Your task to perform on an android device: set default search engine in the chrome app Image 0: 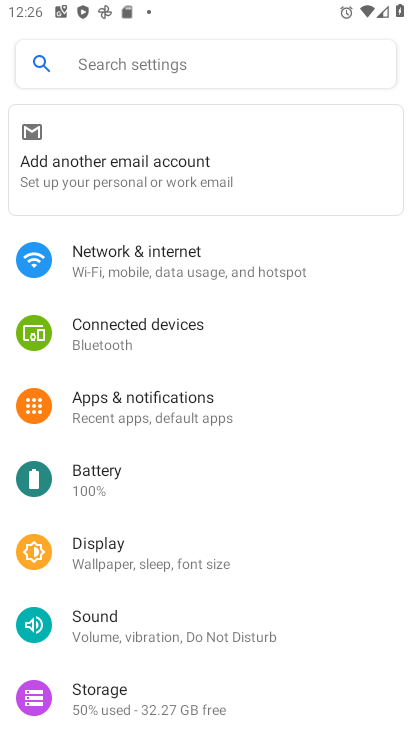
Step 0: drag from (204, 662) to (207, 332)
Your task to perform on an android device: set default search engine in the chrome app Image 1: 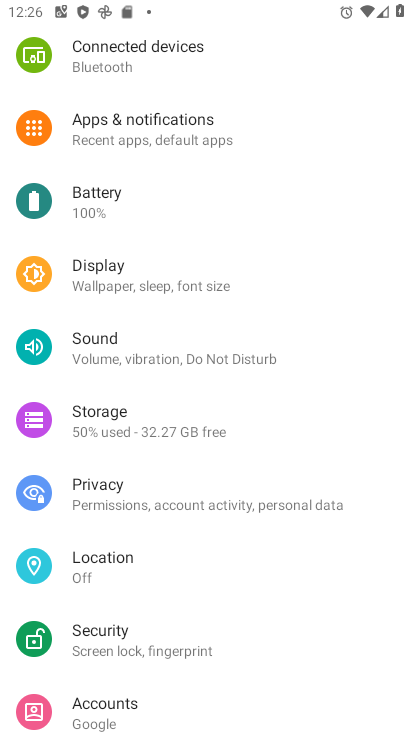
Step 1: press home button
Your task to perform on an android device: set default search engine in the chrome app Image 2: 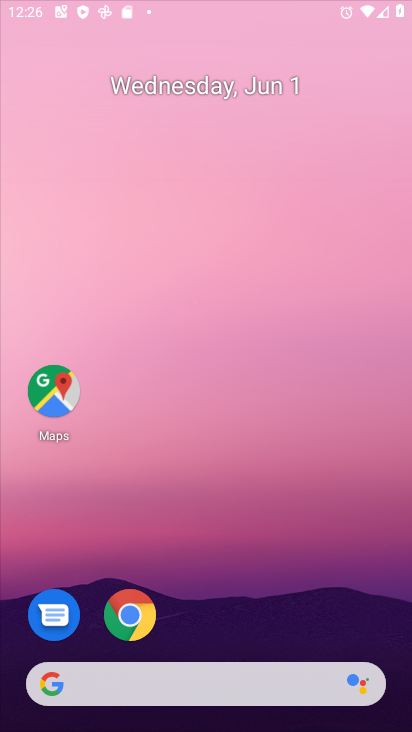
Step 2: drag from (237, 654) to (248, 100)
Your task to perform on an android device: set default search engine in the chrome app Image 3: 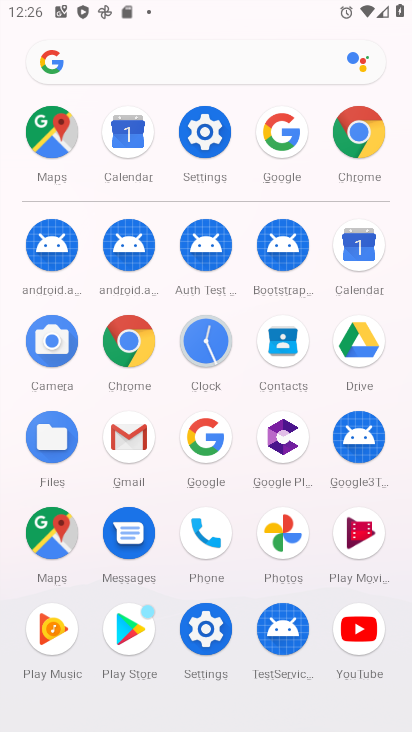
Step 3: click (358, 138)
Your task to perform on an android device: set default search engine in the chrome app Image 4: 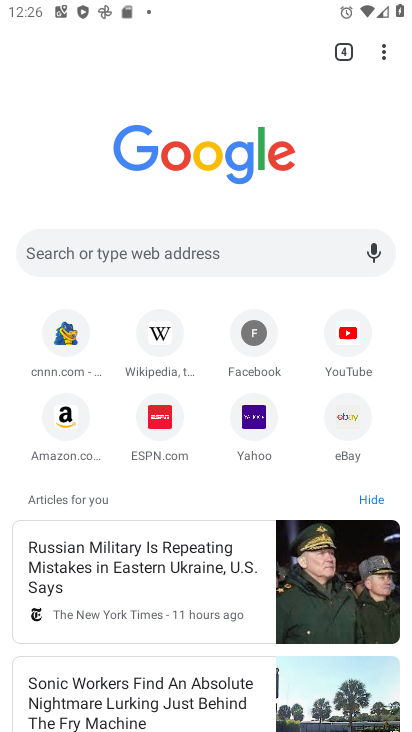
Step 4: drag from (379, 53) to (179, 431)
Your task to perform on an android device: set default search engine in the chrome app Image 5: 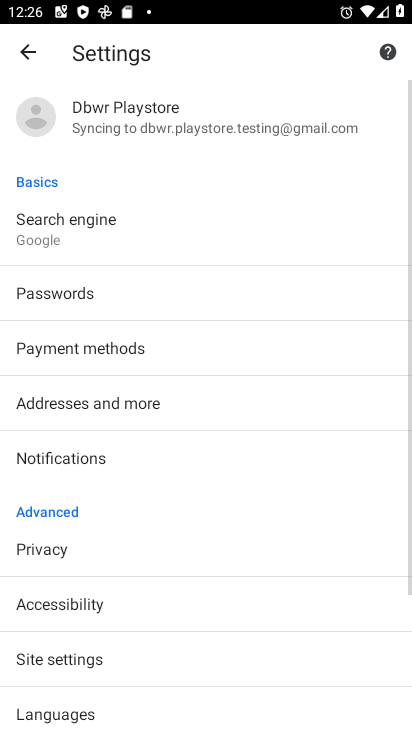
Step 5: click (90, 207)
Your task to perform on an android device: set default search engine in the chrome app Image 6: 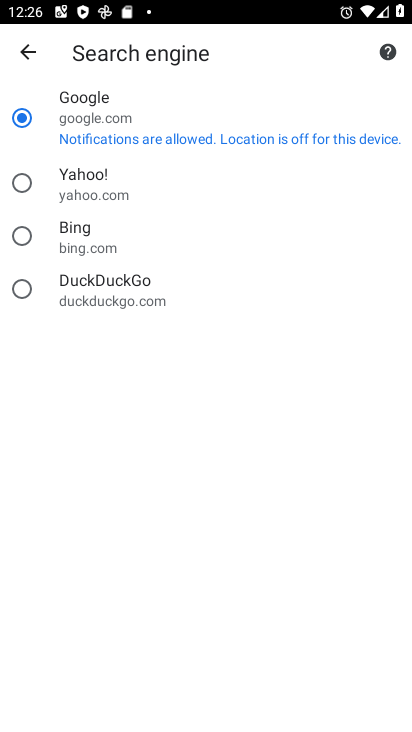
Step 6: task complete